Your task to perform on an android device: Open Yahoo.com Image 0: 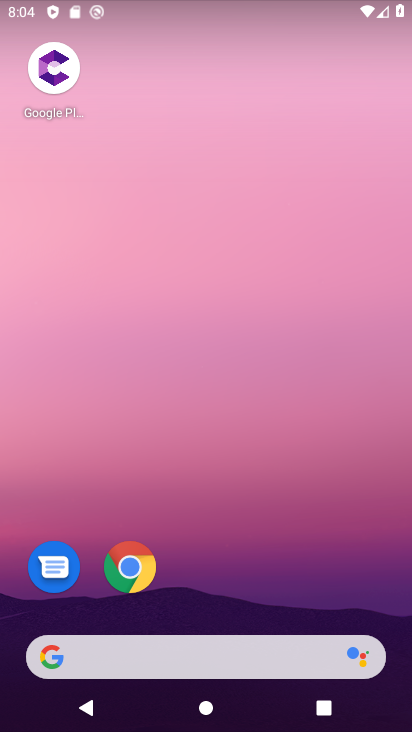
Step 0: click (181, 652)
Your task to perform on an android device: Open Yahoo.com Image 1: 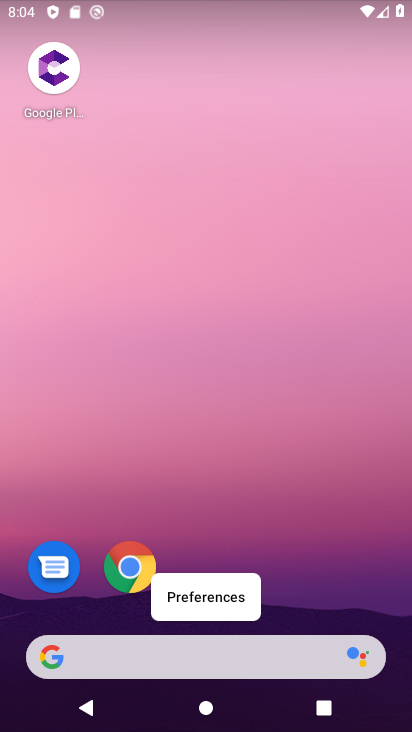
Step 1: click (181, 652)
Your task to perform on an android device: Open Yahoo.com Image 2: 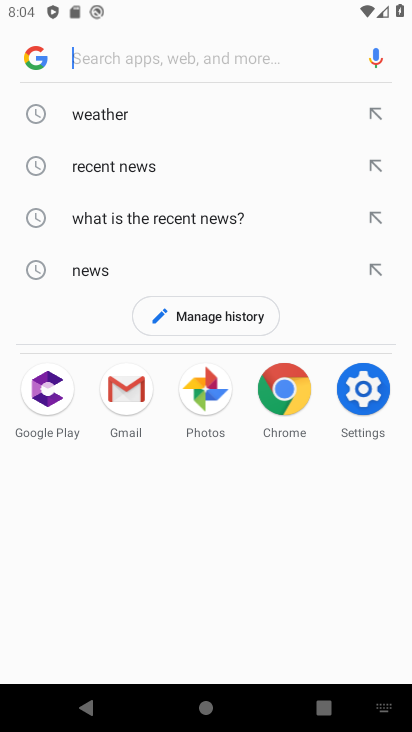
Step 2: type "Yahoo.com"
Your task to perform on an android device: Open Yahoo.com Image 3: 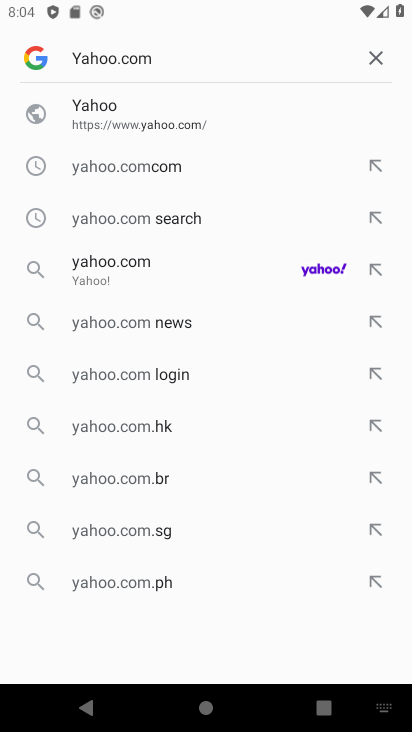
Step 3: click (221, 108)
Your task to perform on an android device: Open Yahoo.com Image 4: 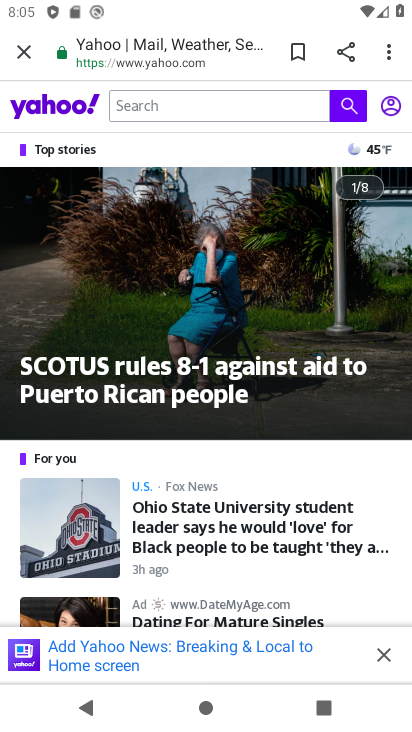
Step 4: task complete